Your task to perform on an android device: turn on translation in the chrome app Image 0: 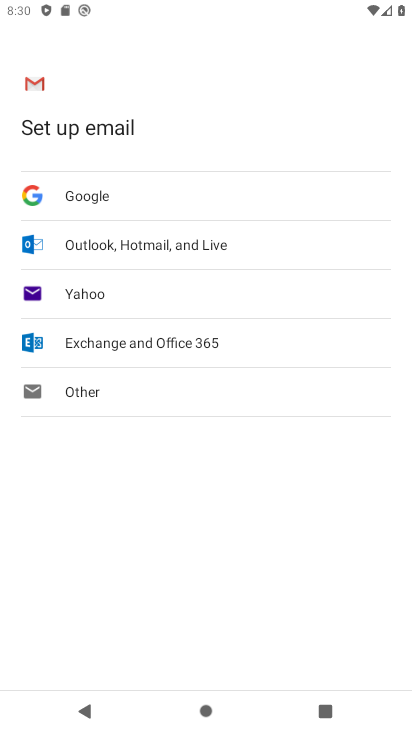
Step 0: press home button
Your task to perform on an android device: turn on translation in the chrome app Image 1: 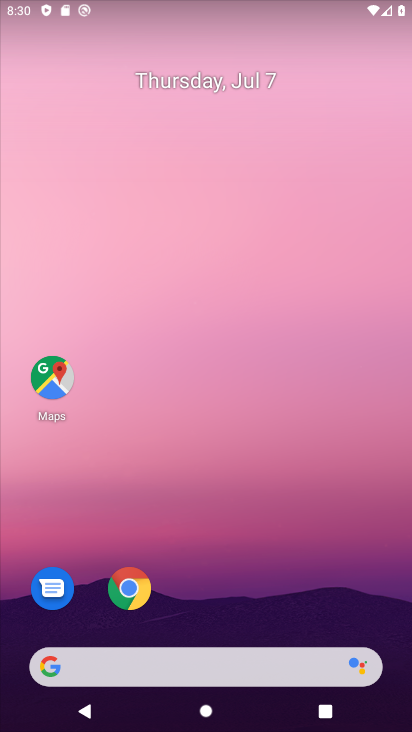
Step 1: click (130, 588)
Your task to perform on an android device: turn on translation in the chrome app Image 2: 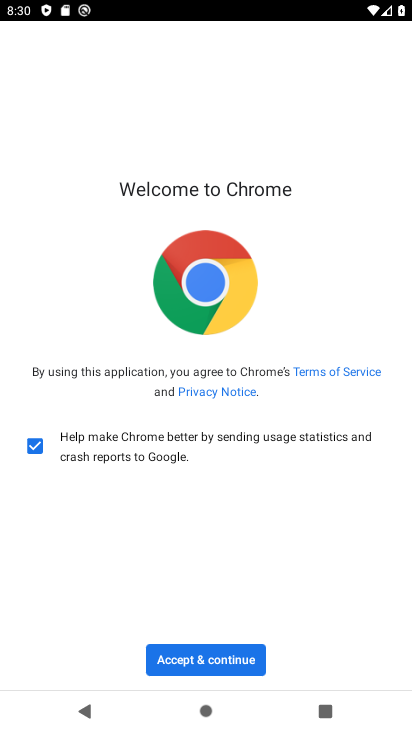
Step 2: click (195, 656)
Your task to perform on an android device: turn on translation in the chrome app Image 3: 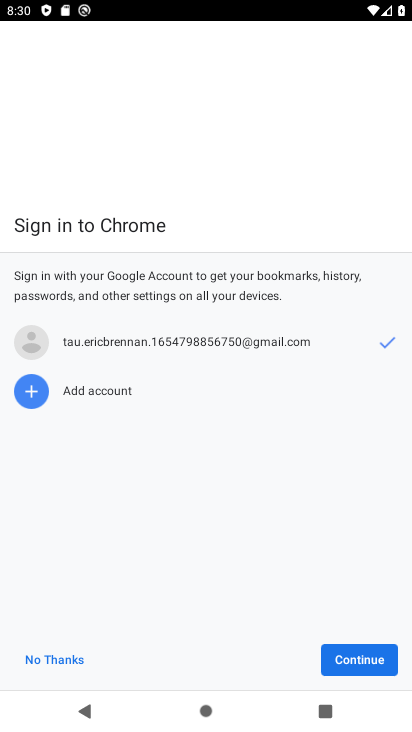
Step 3: click (348, 663)
Your task to perform on an android device: turn on translation in the chrome app Image 4: 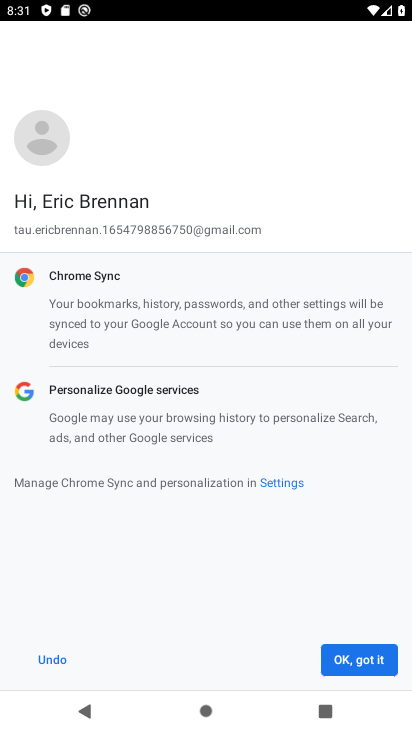
Step 4: click (348, 663)
Your task to perform on an android device: turn on translation in the chrome app Image 5: 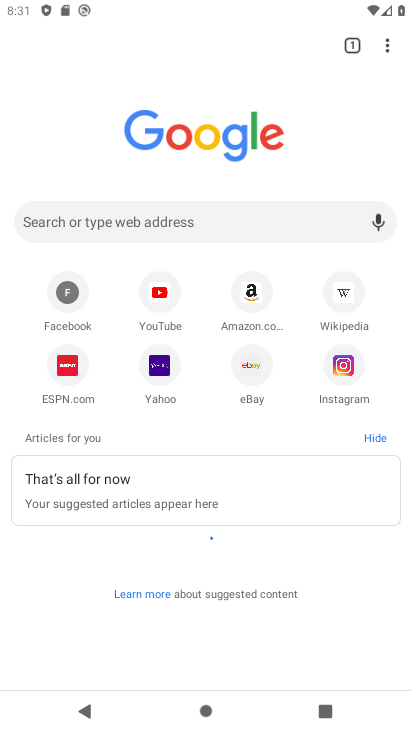
Step 5: click (390, 41)
Your task to perform on an android device: turn on translation in the chrome app Image 6: 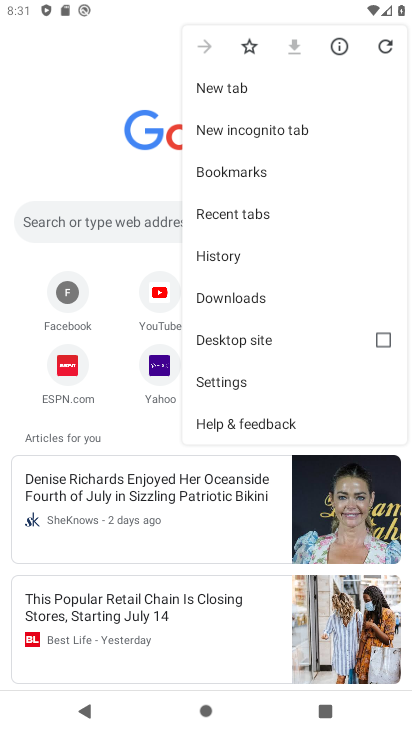
Step 6: click (221, 383)
Your task to perform on an android device: turn on translation in the chrome app Image 7: 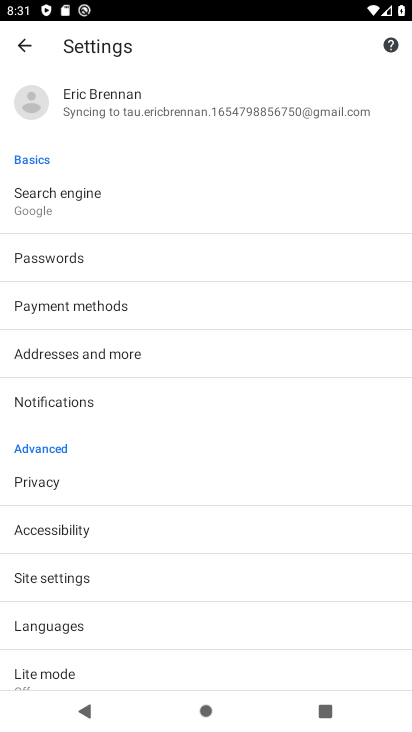
Step 7: click (65, 621)
Your task to perform on an android device: turn on translation in the chrome app Image 8: 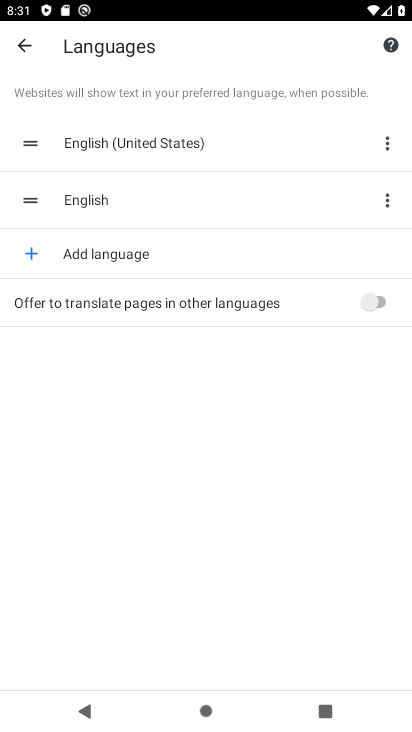
Step 8: click (377, 298)
Your task to perform on an android device: turn on translation in the chrome app Image 9: 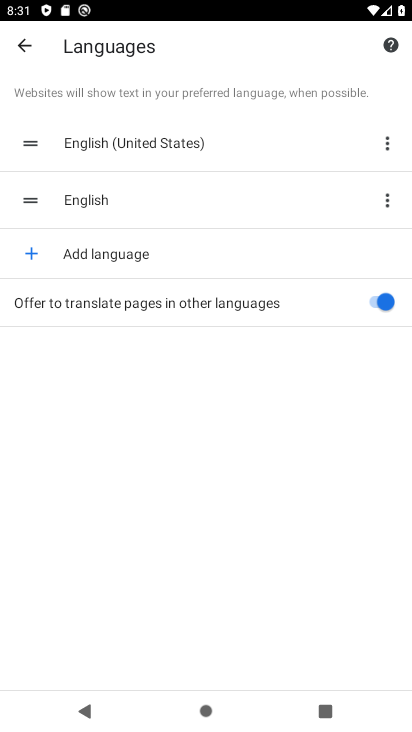
Step 9: task complete